Your task to perform on an android device: open device folders in google photos Image 0: 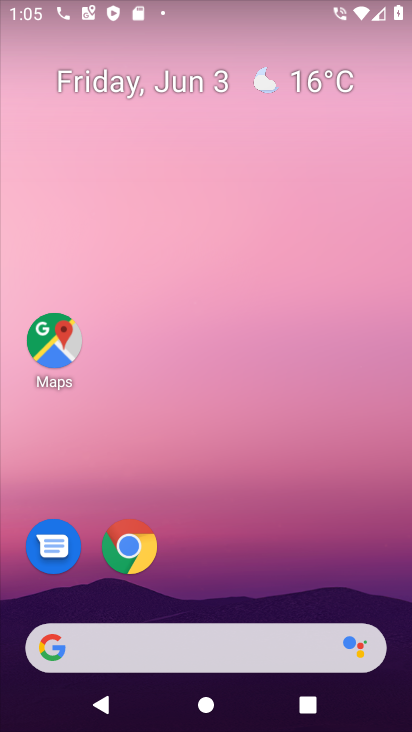
Step 0: drag from (223, 565) to (166, 114)
Your task to perform on an android device: open device folders in google photos Image 1: 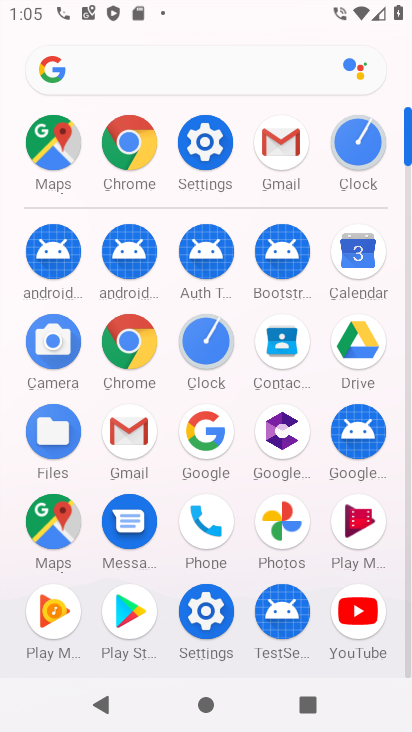
Step 1: click (289, 534)
Your task to perform on an android device: open device folders in google photos Image 2: 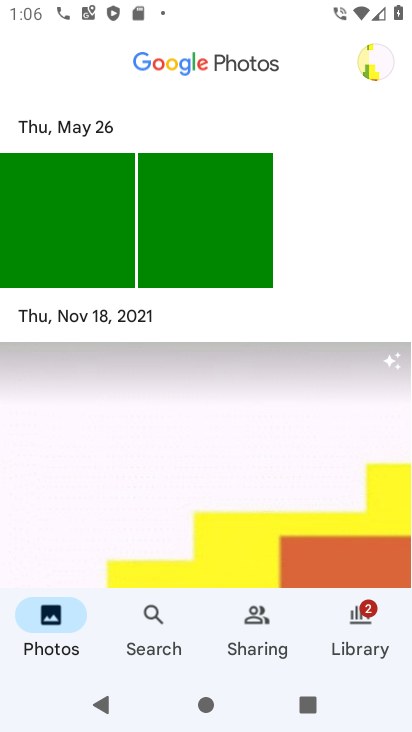
Step 2: click (150, 608)
Your task to perform on an android device: open device folders in google photos Image 3: 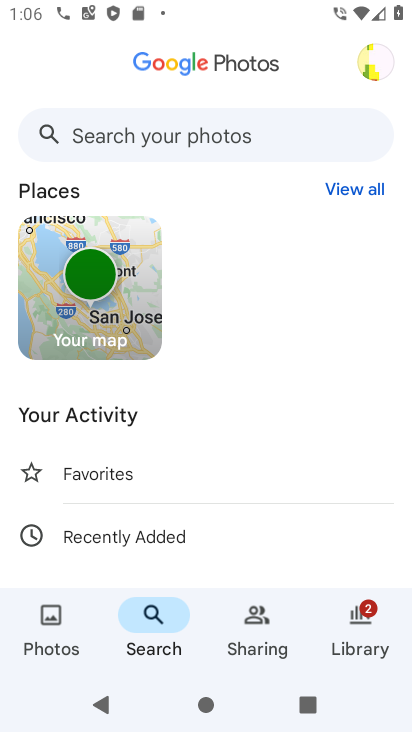
Step 3: click (111, 140)
Your task to perform on an android device: open device folders in google photos Image 4: 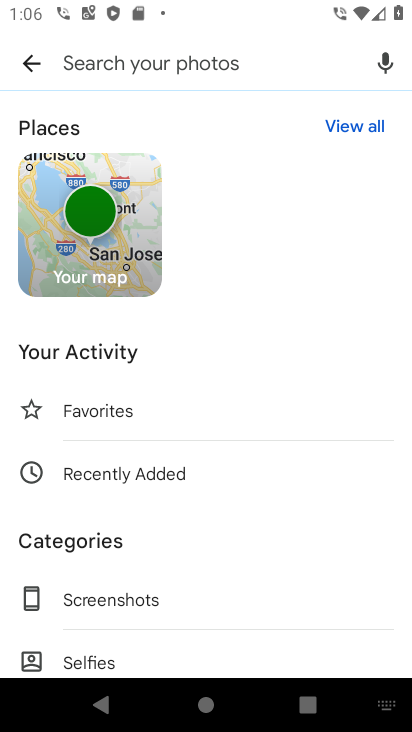
Step 4: type "device"
Your task to perform on an android device: open device folders in google photos Image 5: 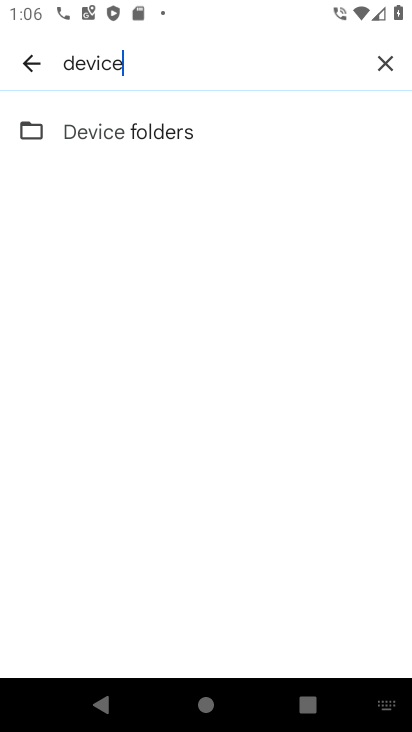
Step 5: click (140, 119)
Your task to perform on an android device: open device folders in google photos Image 6: 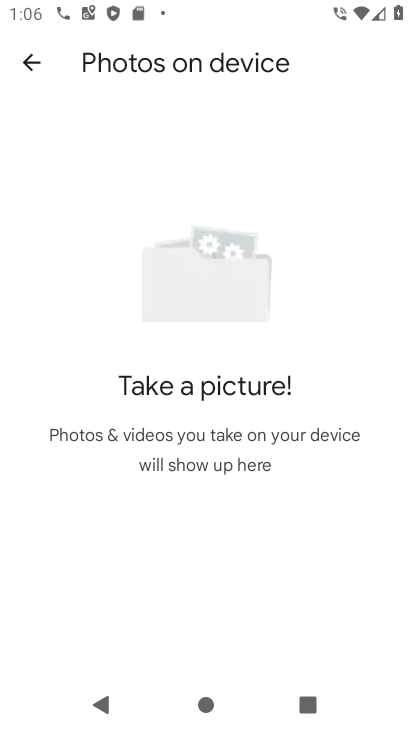
Step 6: task complete